Your task to perform on an android device: Open Reddit.com Image 0: 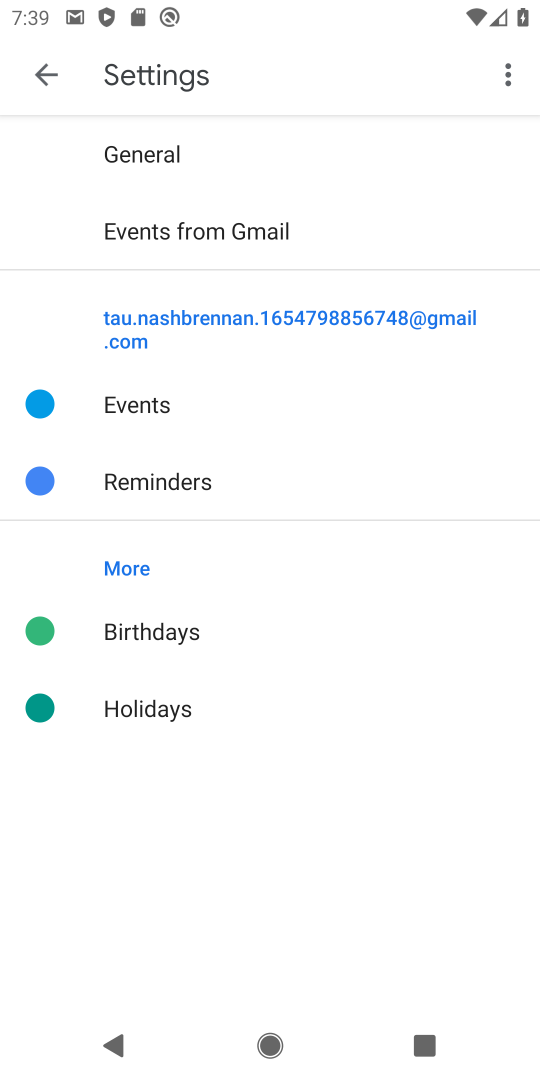
Step 0: press home button
Your task to perform on an android device: Open Reddit.com Image 1: 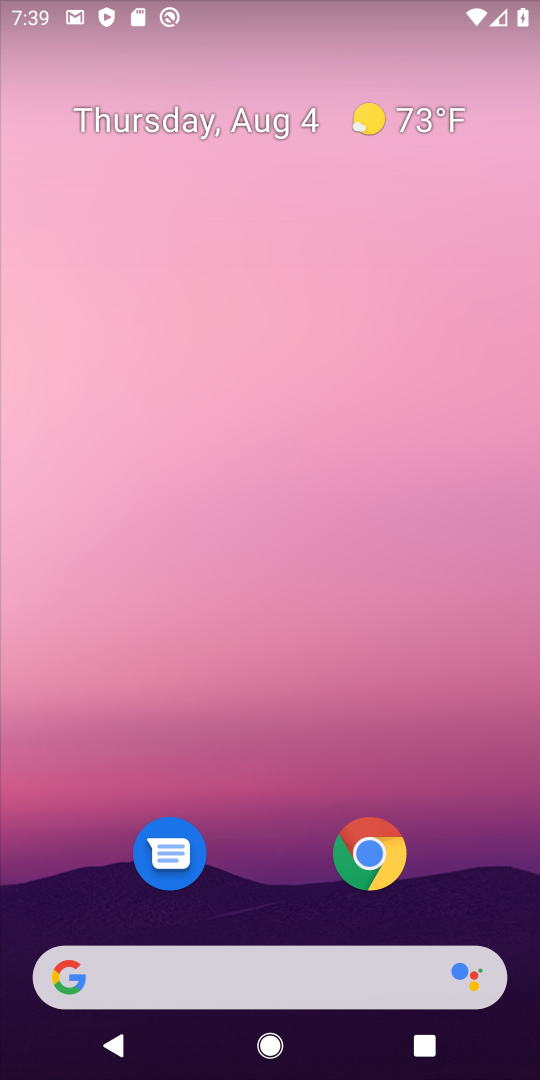
Step 1: drag from (188, 963) to (234, 315)
Your task to perform on an android device: Open Reddit.com Image 2: 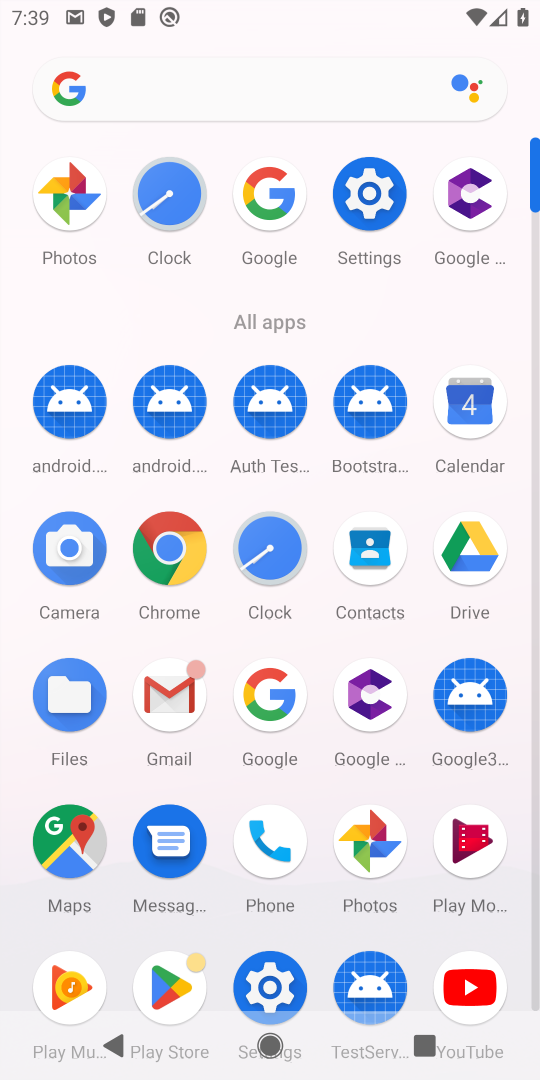
Step 2: click (262, 708)
Your task to perform on an android device: Open Reddit.com Image 3: 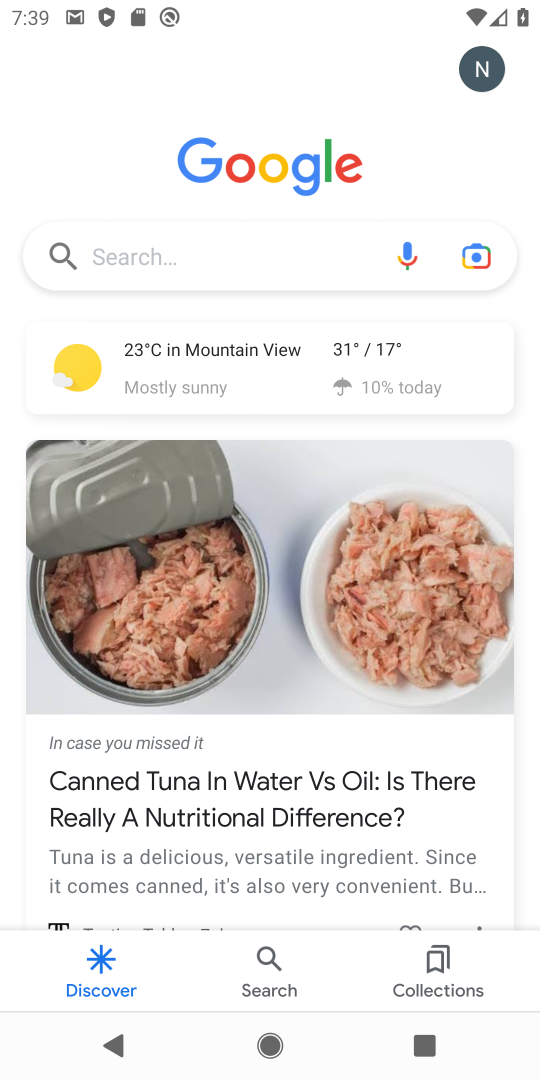
Step 3: click (286, 263)
Your task to perform on an android device: Open Reddit.com Image 4: 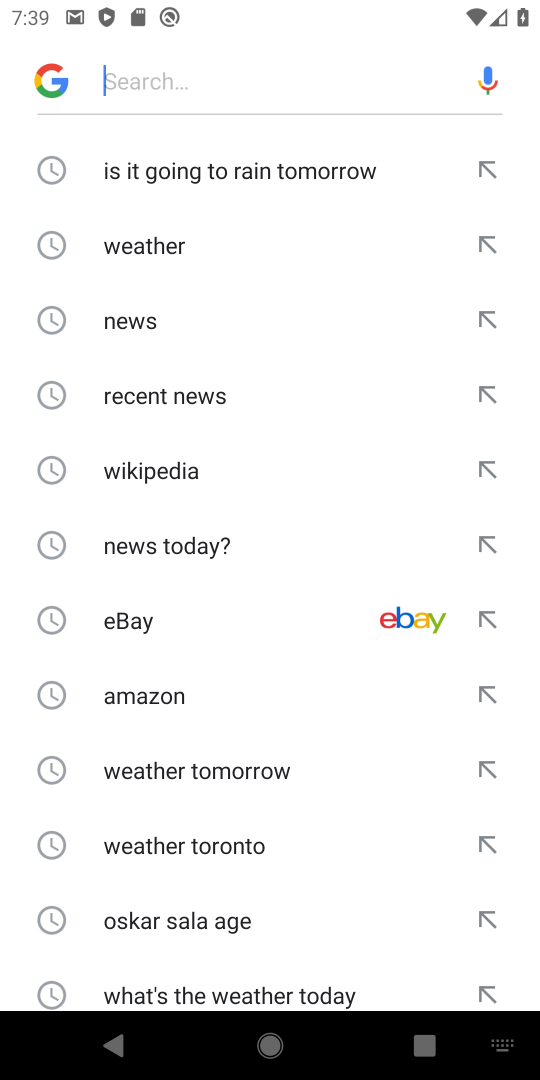
Step 4: drag from (169, 821) to (205, 322)
Your task to perform on an android device: Open Reddit.com Image 5: 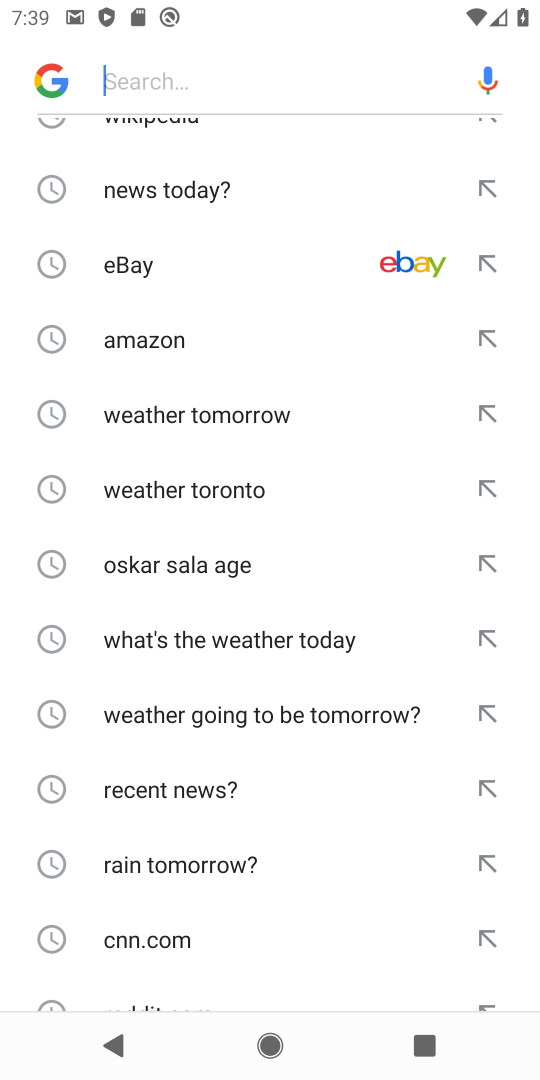
Step 5: drag from (173, 941) to (214, 318)
Your task to perform on an android device: Open Reddit.com Image 6: 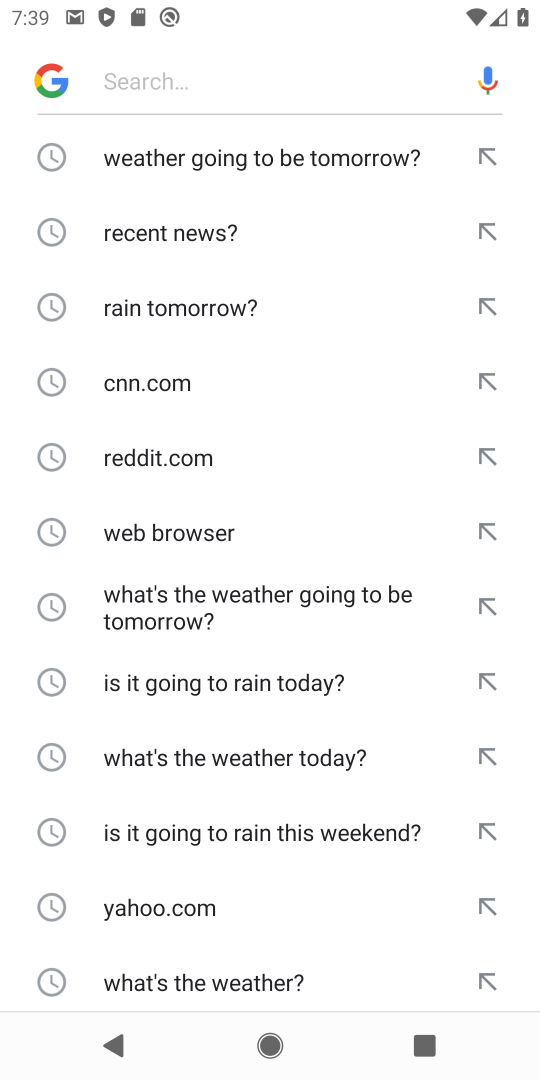
Step 6: click (182, 452)
Your task to perform on an android device: Open Reddit.com Image 7: 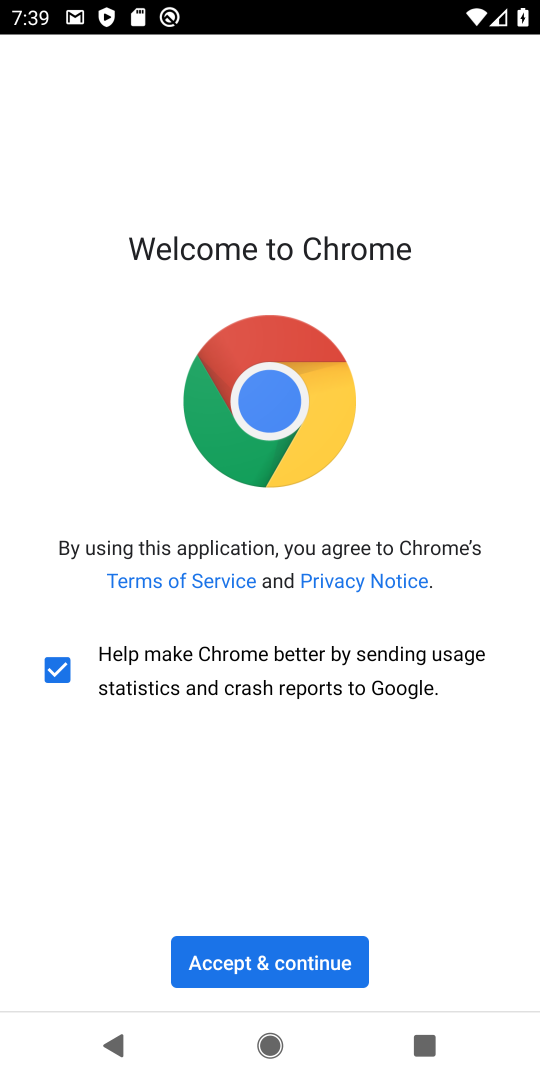
Step 7: click (233, 965)
Your task to perform on an android device: Open Reddit.com Image 8: 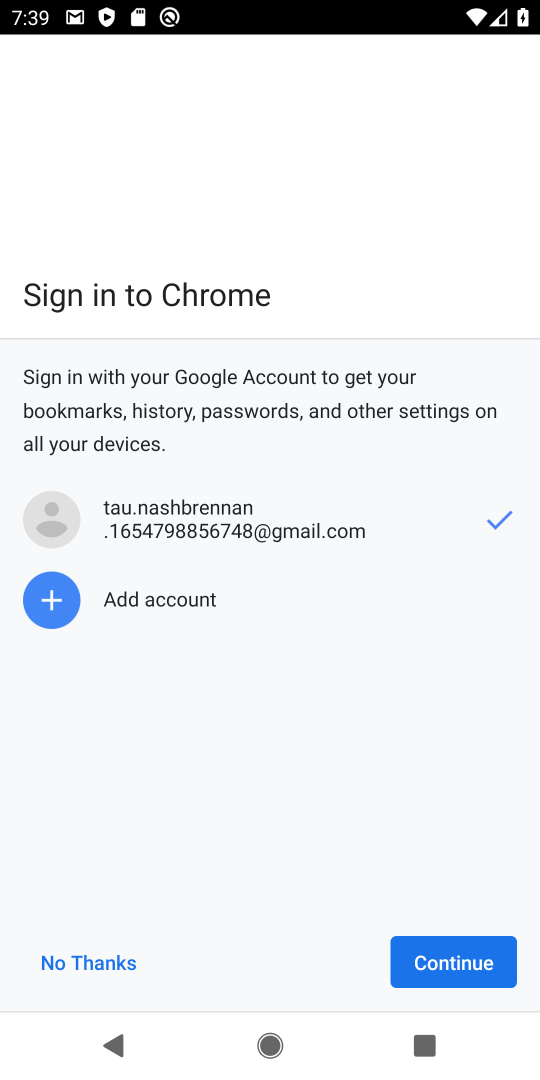
Step 8: click (460, 966)
Your task to perform on an android device: Open Reddit.com Image 9: 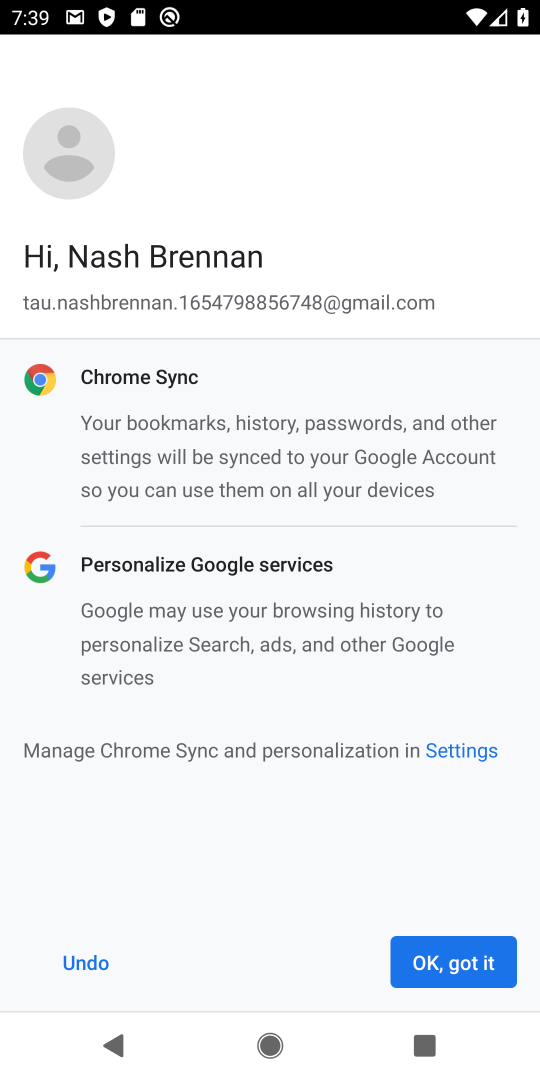
Step 9: click (460, 966)
Your task to perform on an android device: Open Reddit.com Image 10: 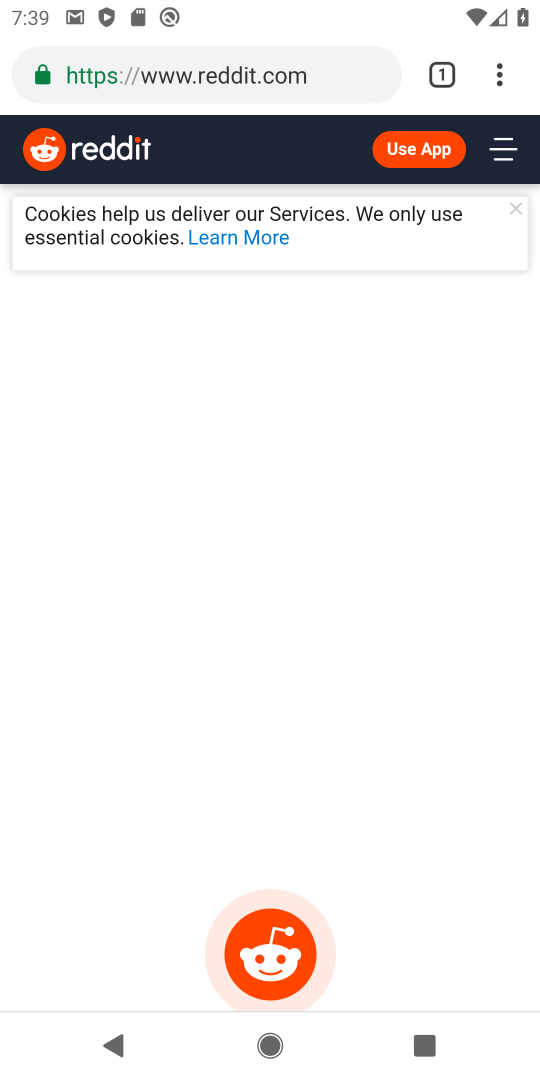
Step 10: task complete